Your task to perform on an android device: Go to display settings Image 0: 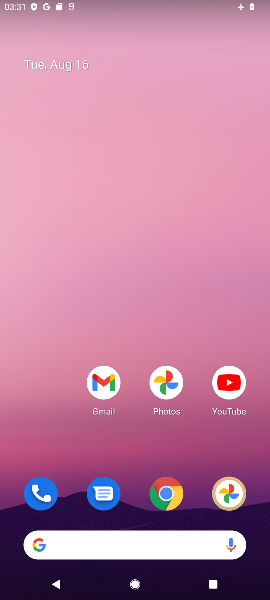
Step 0: press home button
Your task to perform on an android device: Go to display settings Image 1: 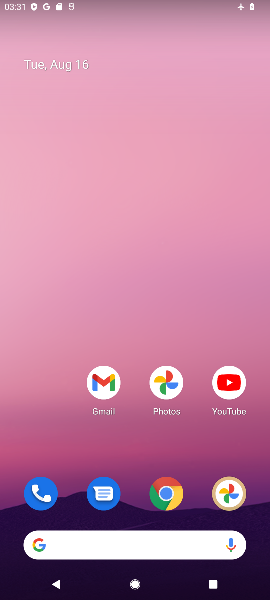
Step 1: drag from (65, 443) to (66, 43)
Your task to perform on an android device: Go to display settings Image 2: 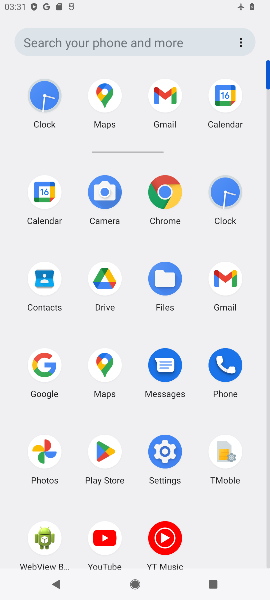
Step 2: click (176, 456)
Your task to perform on an android device: Go to display settings Image 3: 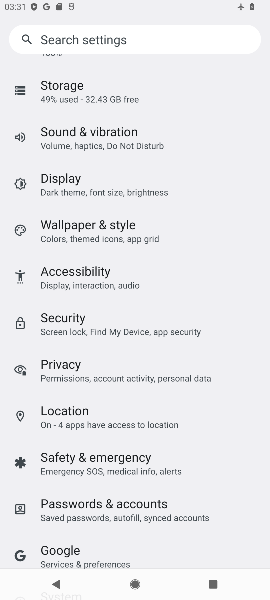
Step 3: drag from (231, 483) to (257, 261)
Your task to perform on an android device: Go to display settings Image 4: 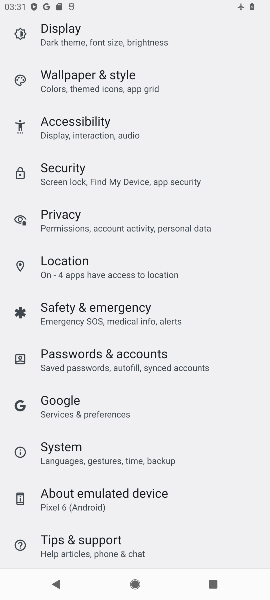
Step 4: click (236, 334)
Your task to perform on an android device: Go to display settings Image 5: 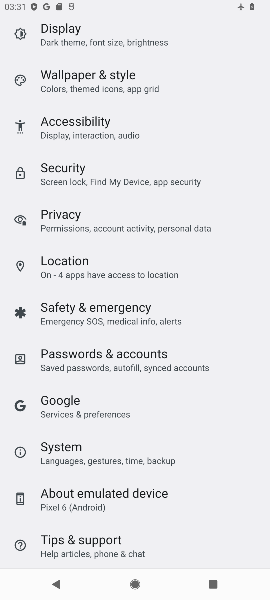
Step 5: drag from (242, 165) to (230, 318)
Your task to perform on an android device: Go to display settings Image 6: 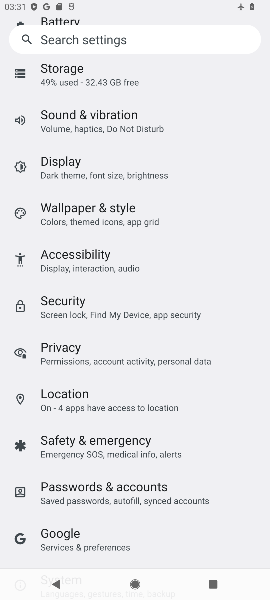
Step 6: drag from (230, 141) to (229, 319)
Your task to perform on an android device: Go to display settings Image 7: 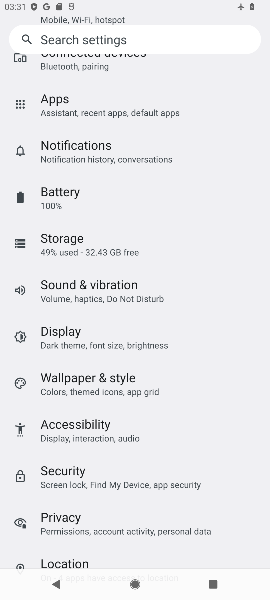
Step 7: drag from (231, 130) to (238, 320)
Your task to perform on an android device: Go to display settings Image 8: 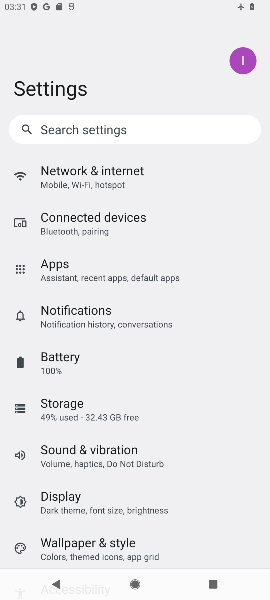
Step 8: drag from (220, 198) to (237, 367)
Your task to perform on an android device: Go to display settings Image 9: 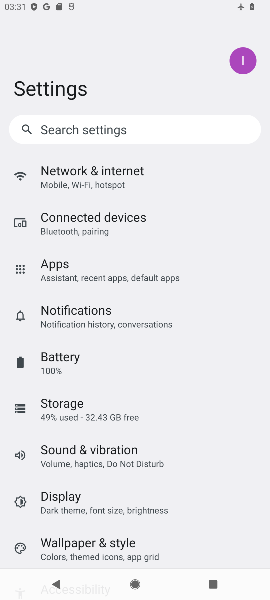
Step 9: click (154, 513)
Your task to perform on an android device: Go to display settings Image 10: 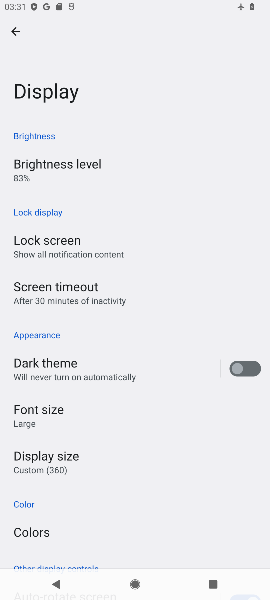
Step 10: task complete